Your task to perform on an android device: add a label to a message in the gmail app Image 0: 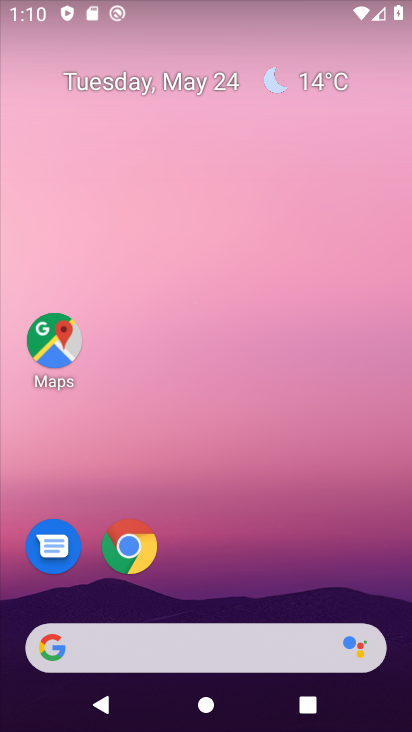
Step 0: drag from (218, 510) to (214, 72)
Your task to perform on an android device: add a label to a message in the gmail app Image 1: 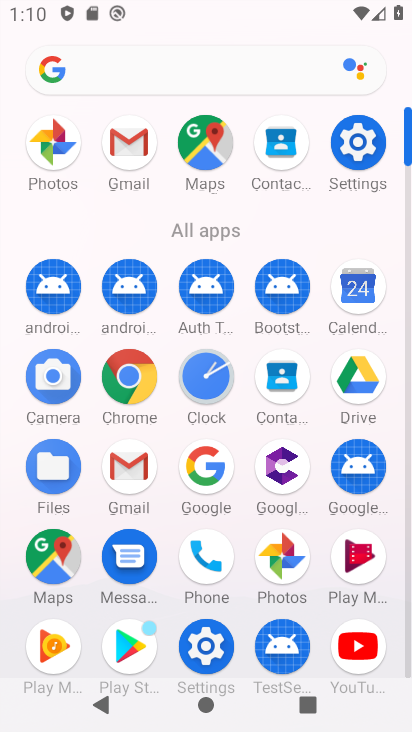
Step 1: click (132, 138)
Your task to perform on an android device: add a label to a message in the gmail app Image 2: 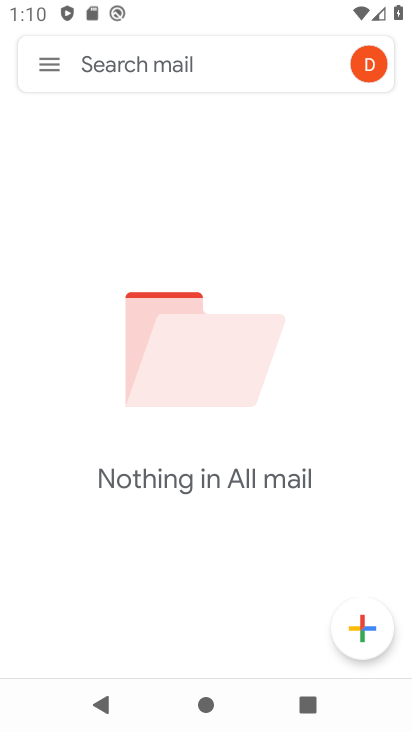
Step 2: click (48, 66)
Your task to perform on an android device: add a label to a message in the gmail app Image 3: 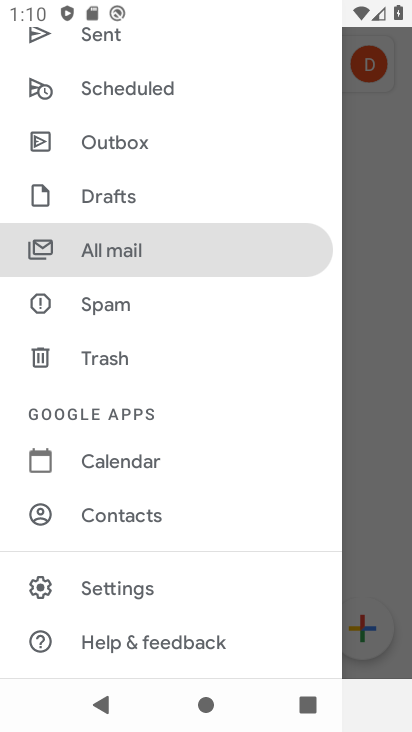
Step 3: click (120, 256)
Your task to perform on an android device: add a label to a message in the gmail app Image 4: 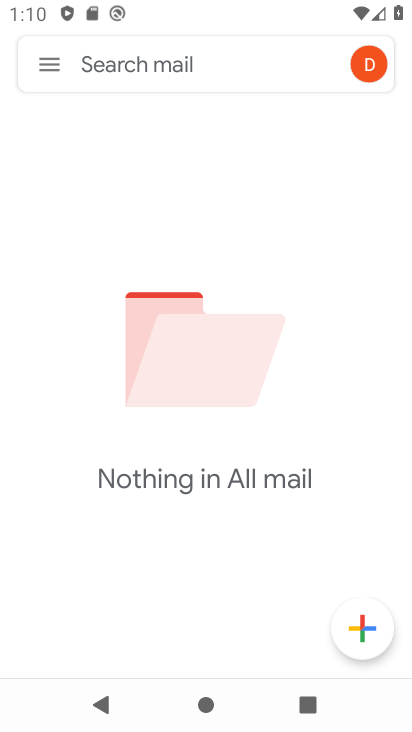
Step 4: task complete